Your task to perform on an android device: Add logitech g pro to the cart on newegg.com, then select checkout. Image 0: 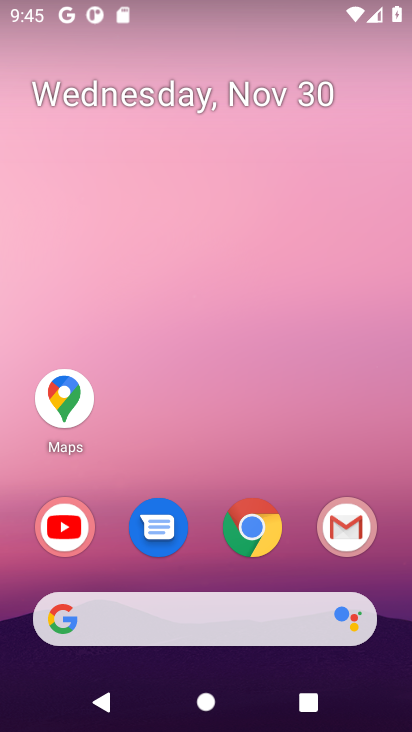
Step 0: click (266, 539)
Your task to perform on an android device: Add logitech g pro to the cart on newegg.com, then select checkout. Image 1: 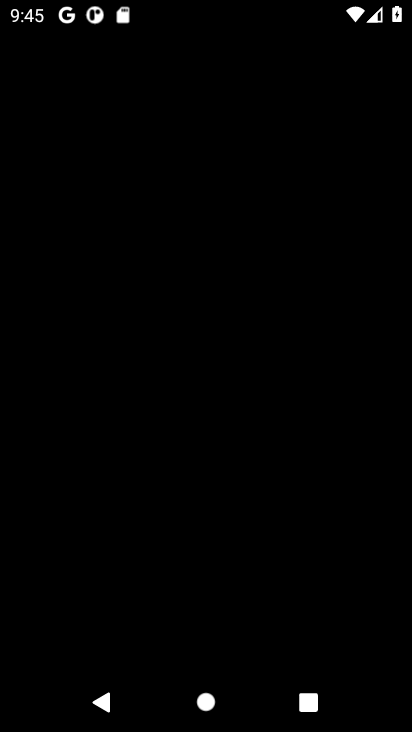
Step 1: press home button
Your task to perform on an android device: Add logitech g pro to the cart on newegg.com, then select checkout. Image 2: 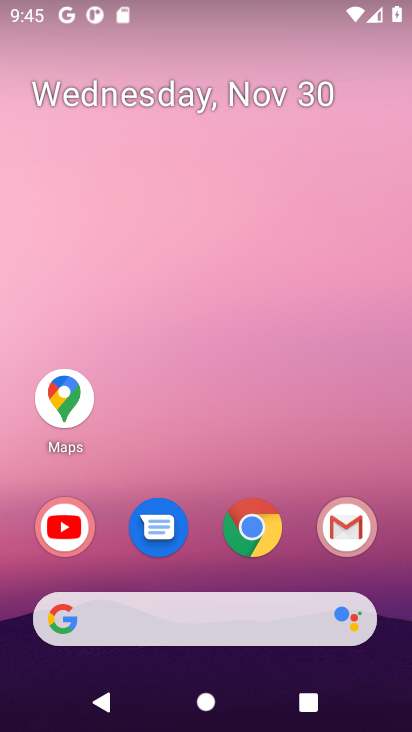
Step 2: click (270, 536)
Your task to perform on an android device: Add logitech g pro to the cart on newegg.com, then select checkout. Image 3: 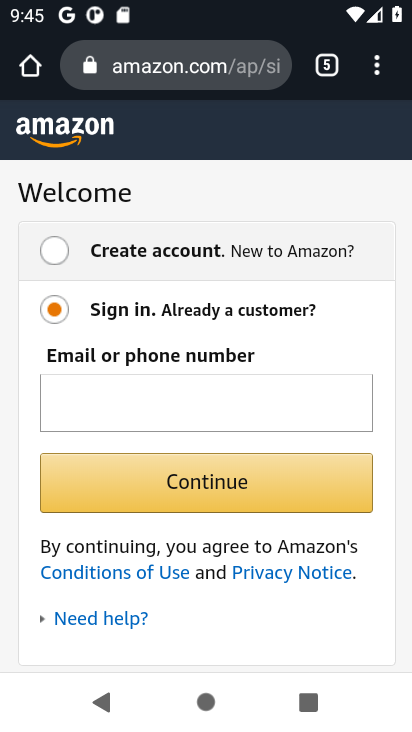
Step 3: click (244, 70)
Your task to perform on an android device: Add logitech g pro to the cart on newegg.com, then select checkout. Image 4: 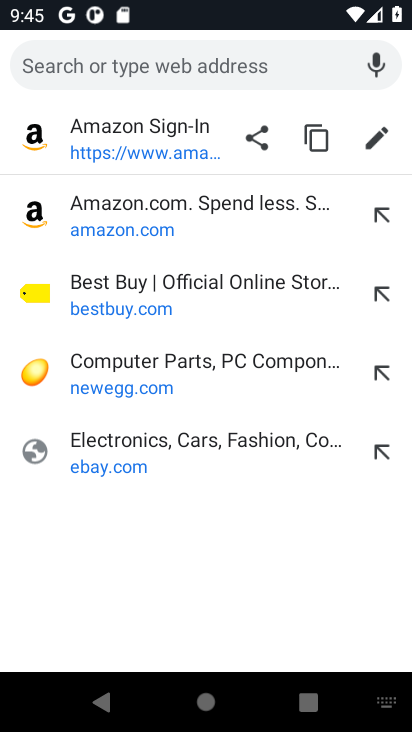
Step 4: click (198, 360)
Your task to perform on an android device: Add logitech g pro to the cart on newegg.com, then select checkout. Image 5: 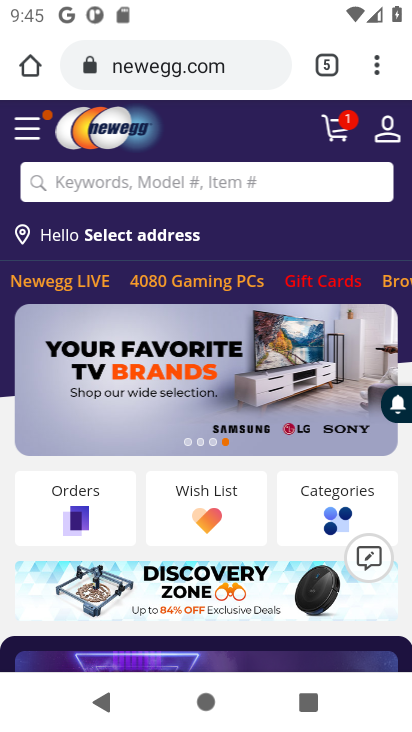
Step 5: click (248, 175)
Your task to perform on an android device: Add logitech g pro to the cart on newegg.com, then select checkout. Image 6: 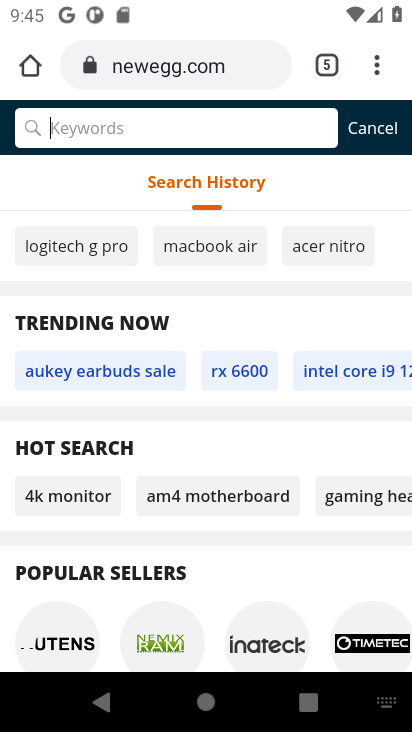
Step 6: type "logitech g pro"
Your task to perform on an android device: Add logitech g pro to the cart on newegg.com, then select checkout. Image 7: 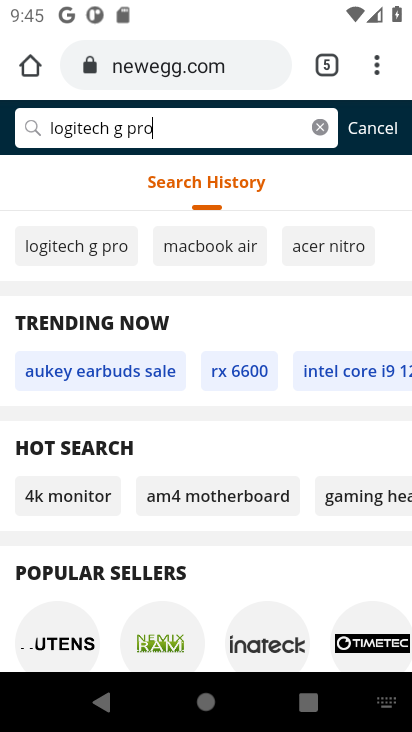
Step 7: press enter
Your task to perform on an android device: Add logitech g pro to the cart on newegg.com, then select checkout. Image 8: 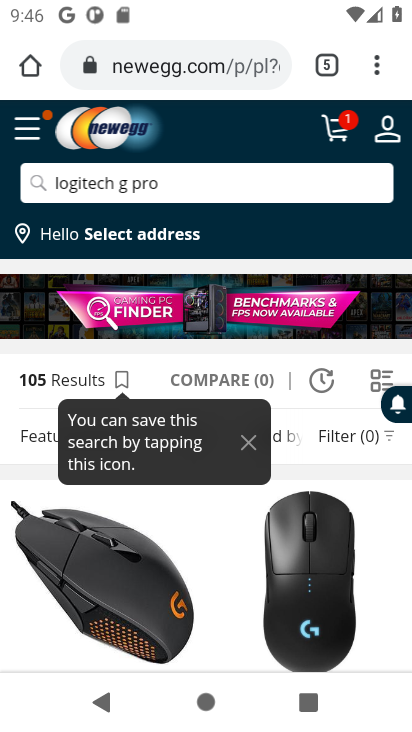
Step 8: drag from (230, 556) to (264, 157)
Your task to perform on an android device: Add logitech g pro to the cart on newegg.com, then select checkout. Image 9: 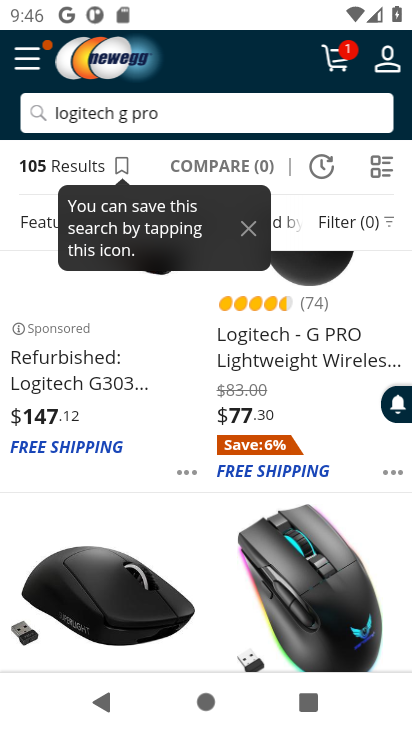
Step 9: click (315, 267)
Your task to perform on an android device: Add logitech g pro to the cart on newegg.com, then select checkout. Image 10: 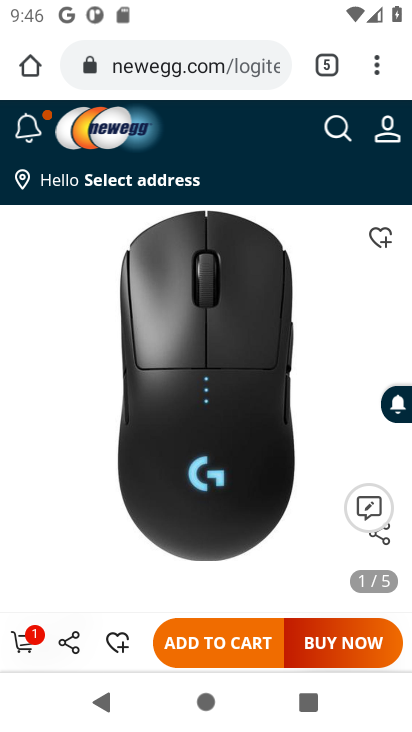
Step 10: click (218, 644)
Your task to perform on an android device: Add logitech g pro to the cart on newegg.com, then select checkout. Image 11: 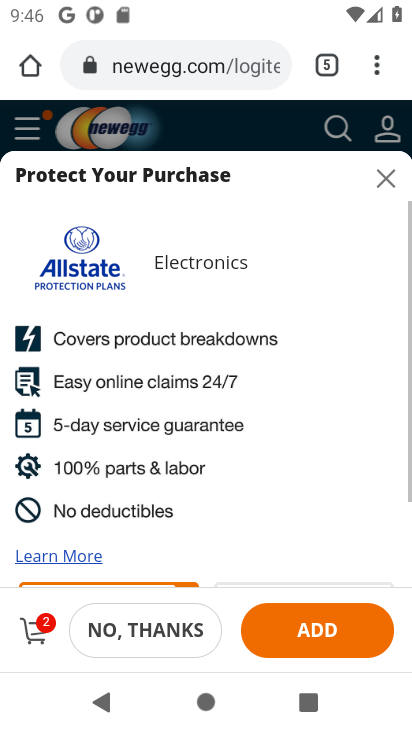
Step 11: click (37, 625)
Your task to perform on an android device: Add logitech g pro to the cart on newegg.com, then select checkout. Image 12: 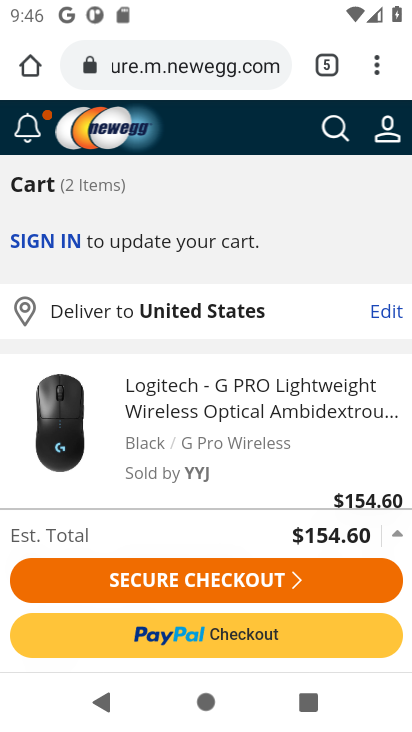
Step 12: click (228, 579)
Your task to perform on an android device: Add logitech g pro to the cart on newegg.com, then select checkout. Image 13: 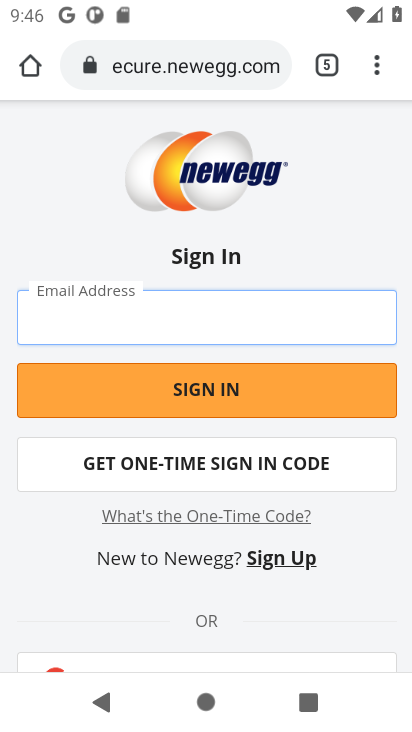
Step 13: task complete